Your task to perform on an android device: stop showing notifications on the lock screen Image 0: 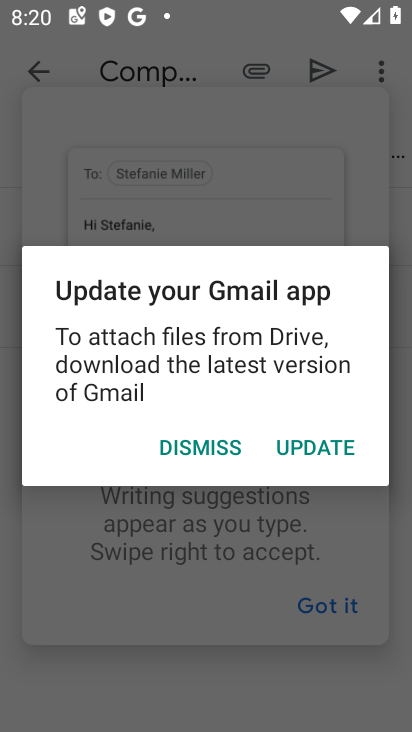
Step 0: drag from (197, 667) to (212, 545)
Your task to perform on an android device: stop showing notifications on the lock screen Image 1: 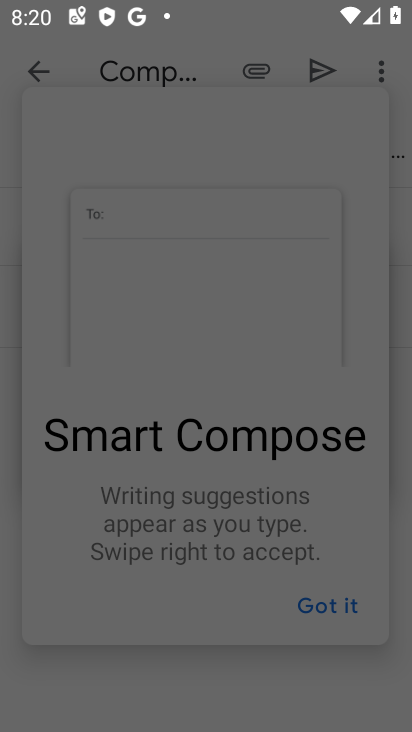
Step 1: press home button
Your task to perform on an android device: stop showing notifications on the lock screen Image 2: 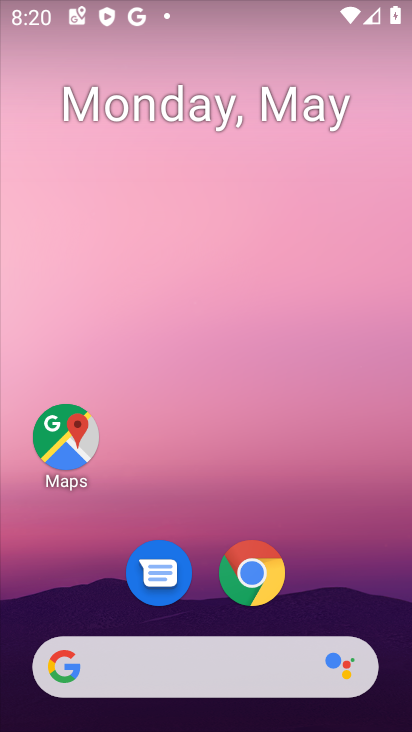
Step 2: drag from (185, 692) to (240, 242)
Your task to perform on an android device: stop showing notifications on the lock screen Image 3: 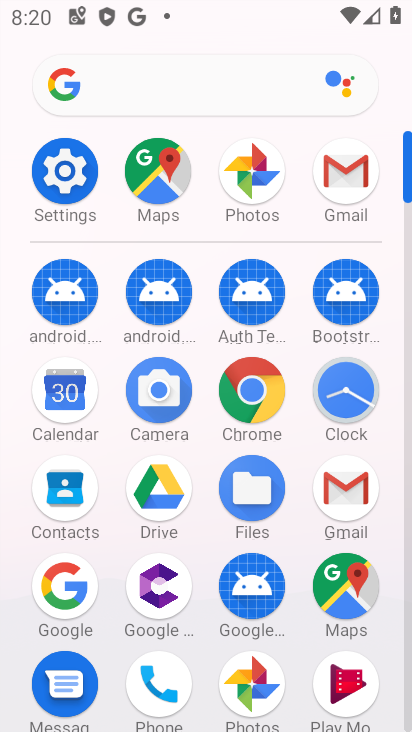
Step 3: click (82, 197)
Your task to perform on an android device: stop showing notifications on the lock screen Image 4: 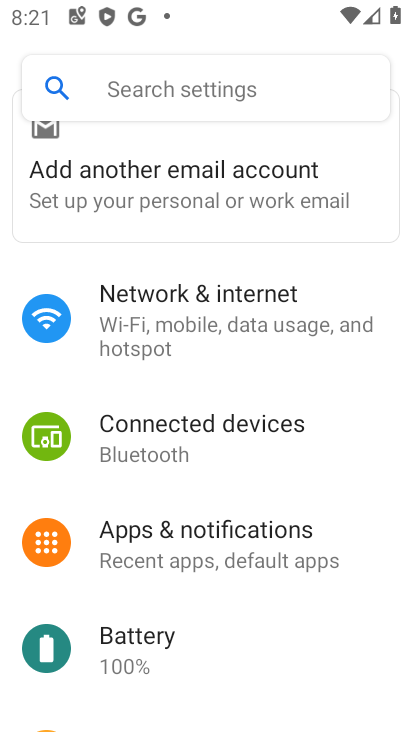
Step 4: click (180, 545)
Your task to perform on an android device: stop showing notifications on the lock screen Image 5: 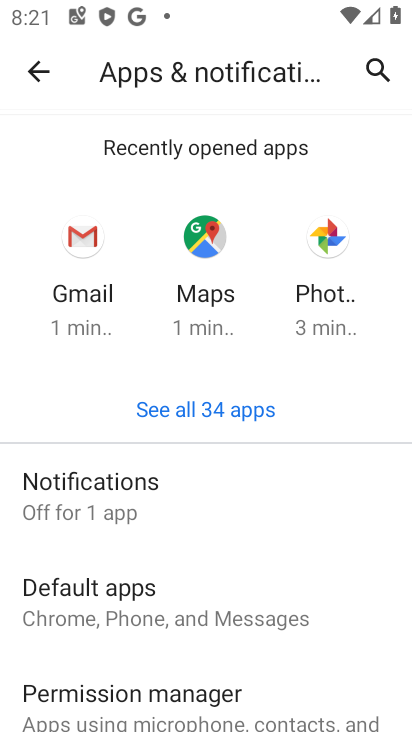
Step 5: click (220, 501)
Your task to perform on an android device: stop showing notifications on the lock screen Image 6: 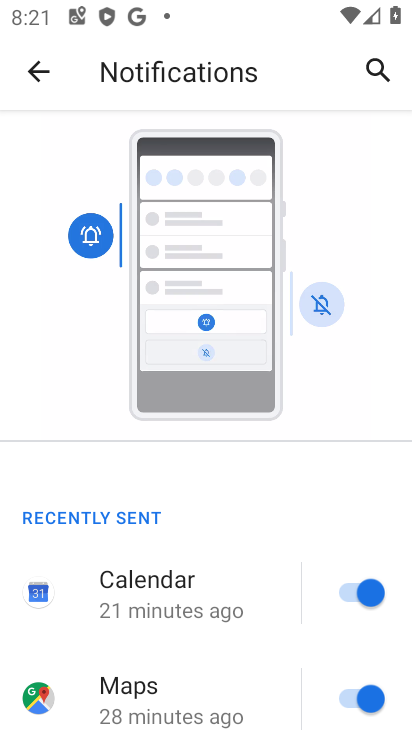
Step 6: drag from (187, 627) to (225, 175)
Your task to perform on an android device: stop showing notifications on the lock screen Image 7: 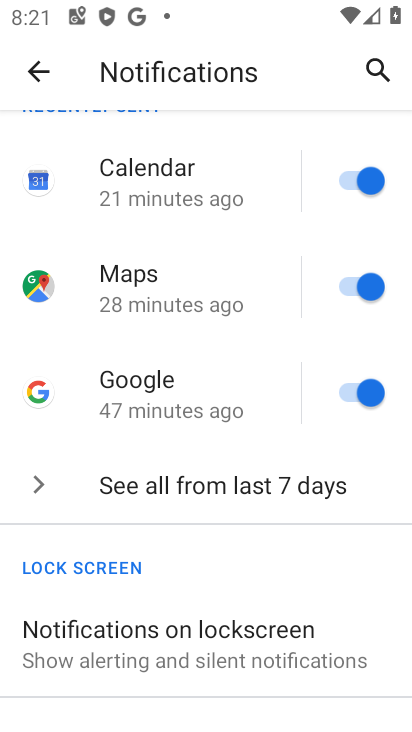
Step 7: click (138, 639)
Your task to perform on an android device: stop showing notifications on the lock screen Image 8: 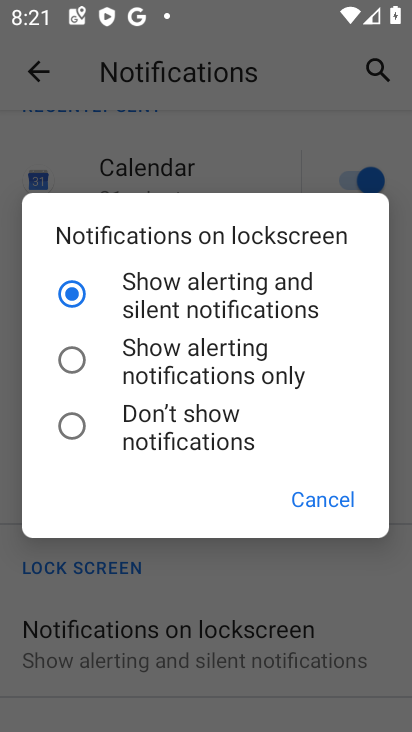
Step 8: click (148, 440)
Your task to perform on an android device: stop showing notifications on the lock screen Image 9: 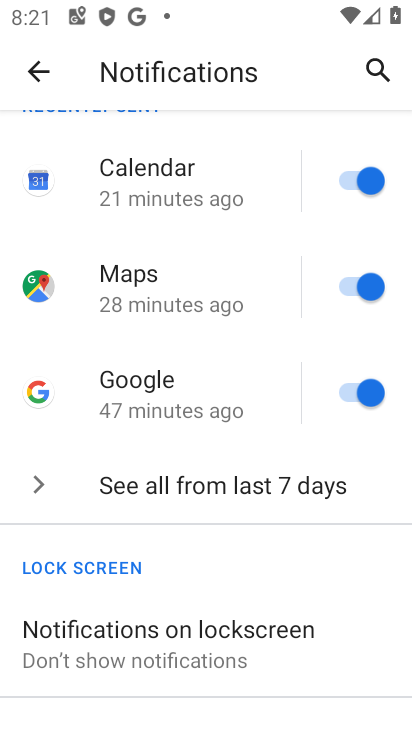
Step 9: task complete